Your task to perform on an android device: move a message to another label in the gmail app Image 0: 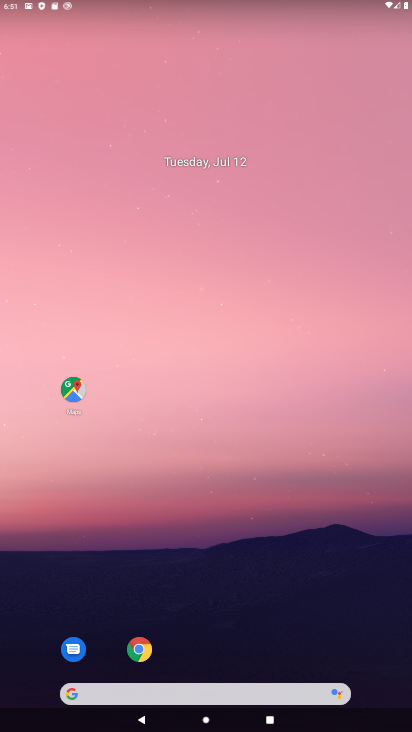
Step 0: drag from (161, 539) to (197, 58)
Your task to perform on an android device: move a message to another label in the gmail app Image 1: 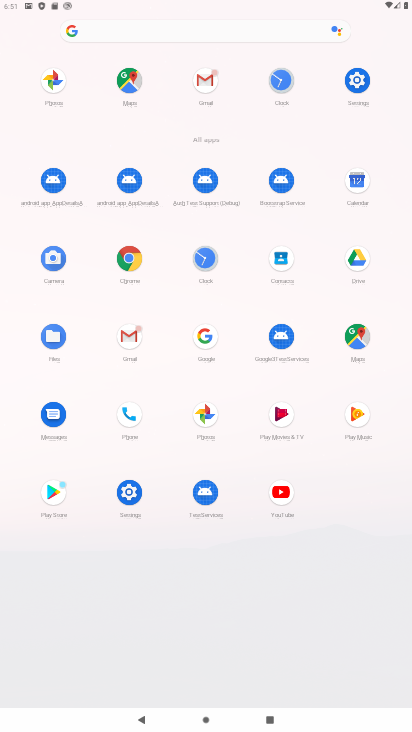
Step 1: click (205, 78)
Your task to perform on an android device: move a message to another label in the gmail app Image 2: 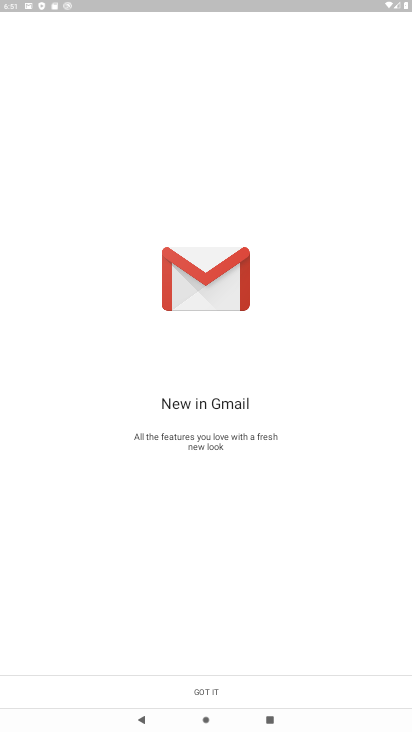
Step 2: click (212, 700)
Your task to perform on an android device: move a message to another label in the gmail app Image 3: 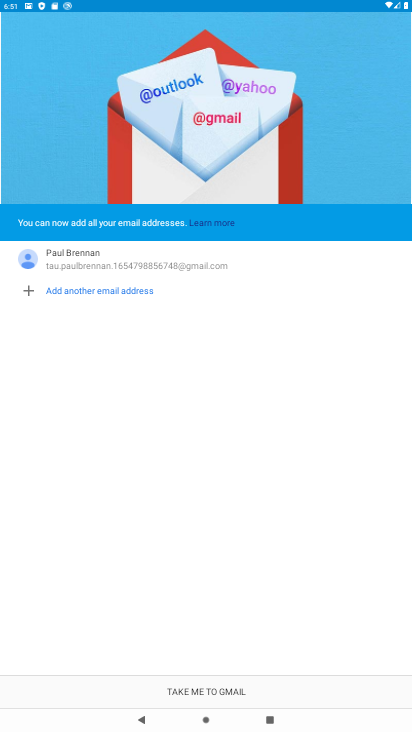
Step 3: click (212, 689)
Your task to perform on an android device: move a message to another label in the gmail app Image 4: 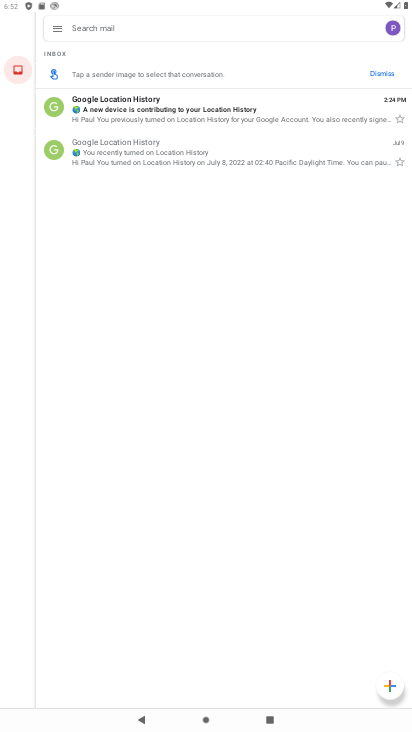
Step 4: click (201, 97)
Your task to perform on an android device: move a message to another label in the gmail app Image 5: 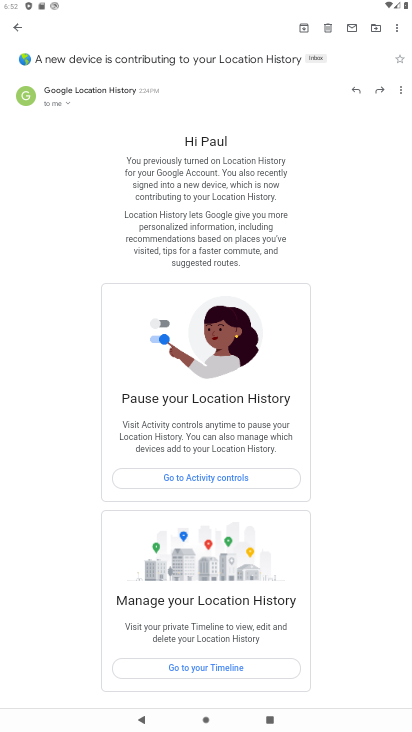
Step 5: click (316, 60)
Your task to perform on an android device: move a message to another label in the gmail app Image 6: 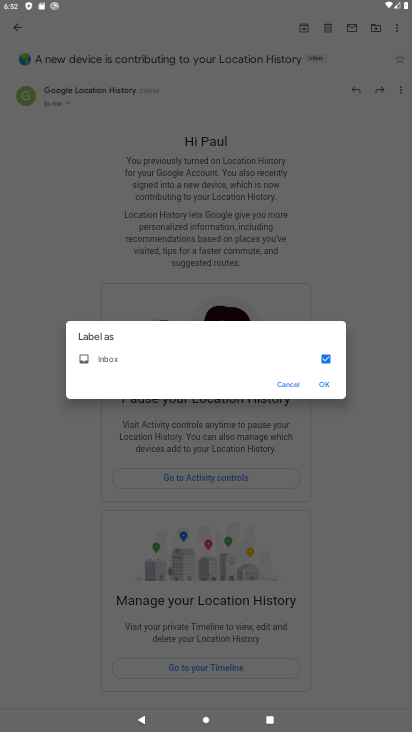
Step 6: click (329, 365)
Your task to perform on an android device: move a message to another label in the gmail app Image 7: 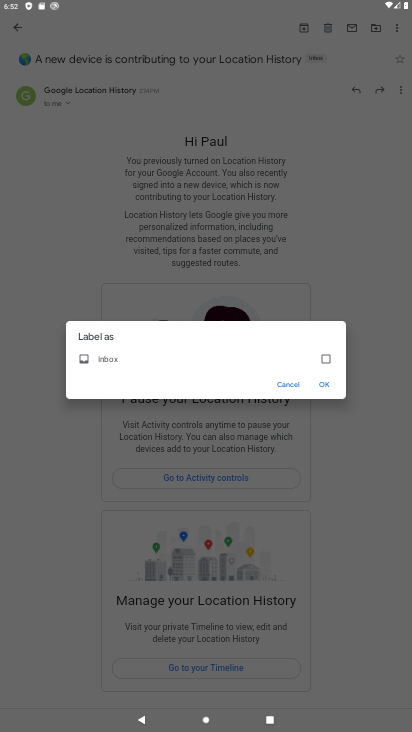
Step 7: click (326, 381)
Your task to perform on an android device: move a message to another label in the gmail app Image 8: 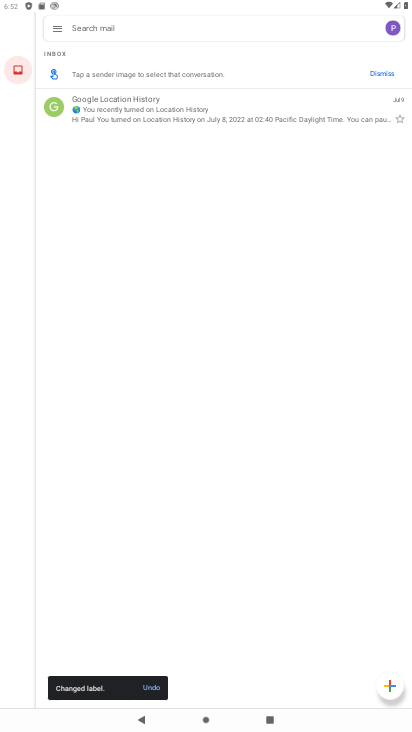
Step 8: task complete